Your task to perform on an android device: Go to sound settings Image 0: 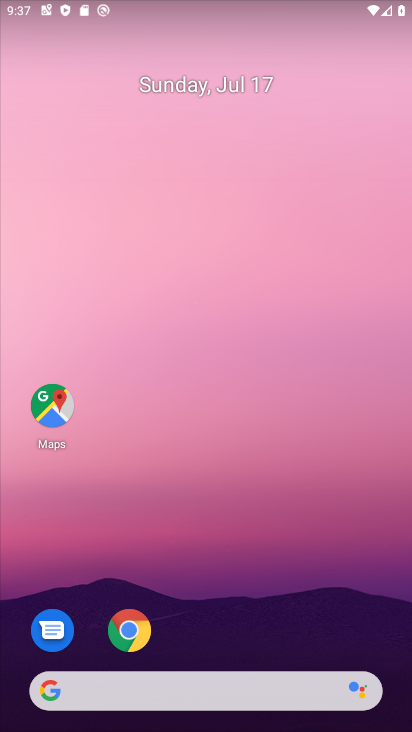
Step 0: drag from (316, 596) to (373, 3)
Your task to perform on an android device: Go to sound settings Image 1: 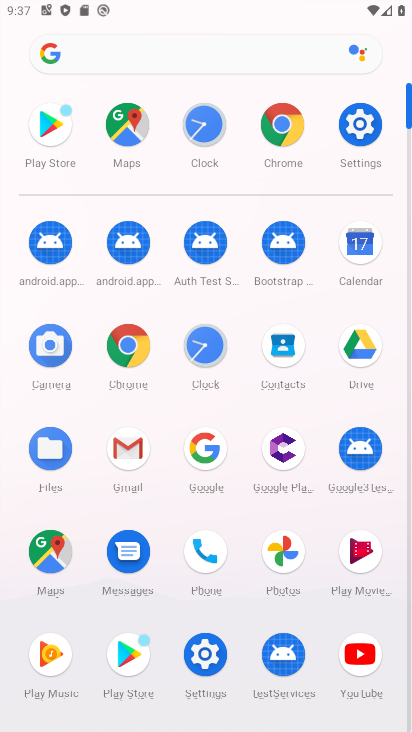
Step 1: click (360, 125)
Your task to perform on an android device: Go to sound settings Image 2: 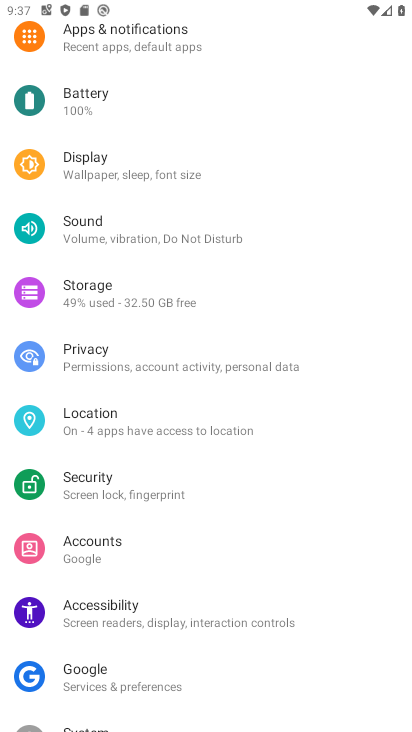
Step 2: click (113, 243)
Your task to perform on an android device: Go to sound settings Image 3: 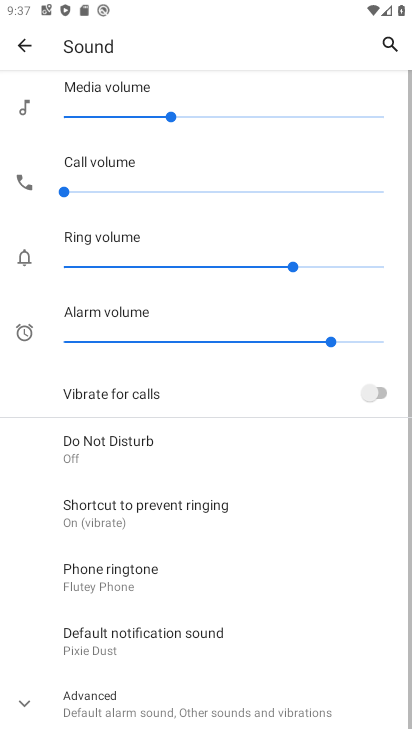
Step 3: task complete